Your task to perform on an android device: Open sound settings Image 0: 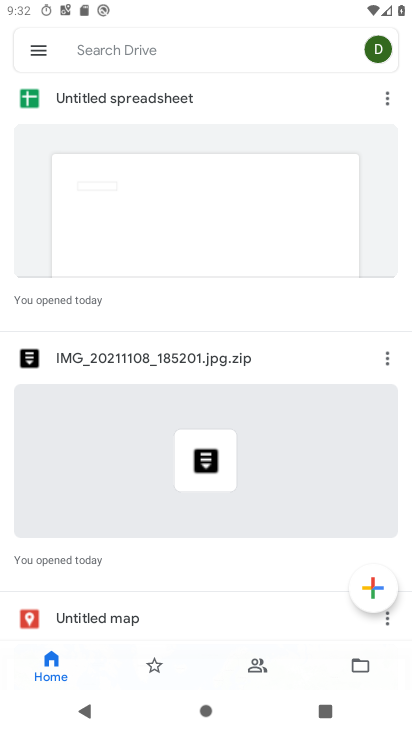
Step 0: press home button
Your task to perform on an android device: Open sound settings Image 1: 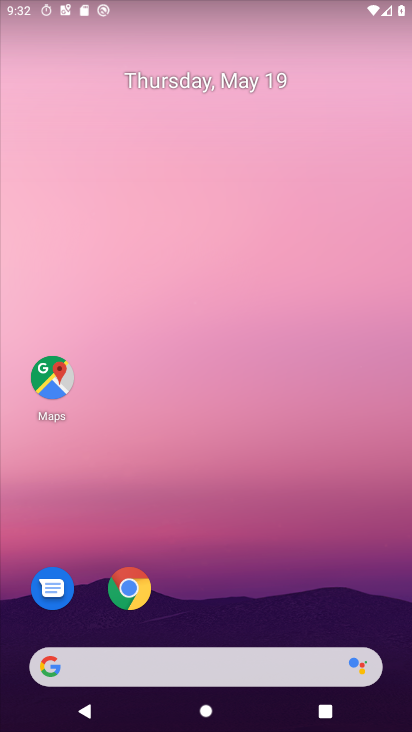
Step 1: drag from (171, 667) to (278, 220)
Your task to perform on an android device: Open sound settings Image 2: 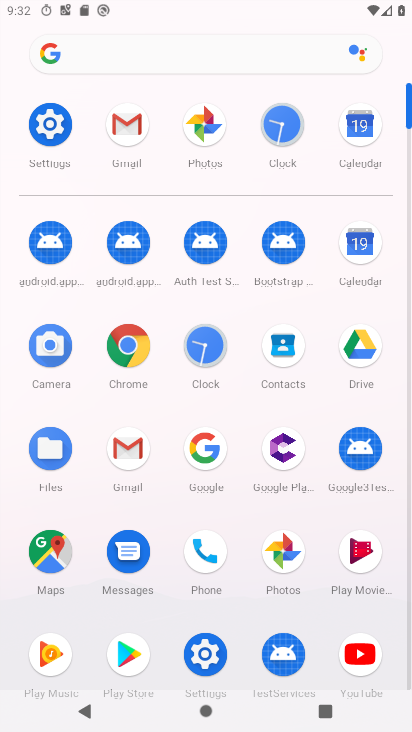
Step 2: click (59, 131)
Your task to perform on an android device: Open sound settings Image 3: 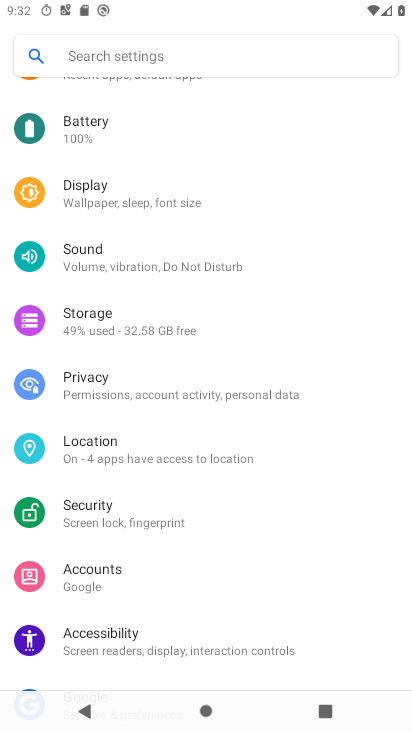
Step 3: click (88, 251)
Your task to perform on an android device: Open sound settings Image 4: 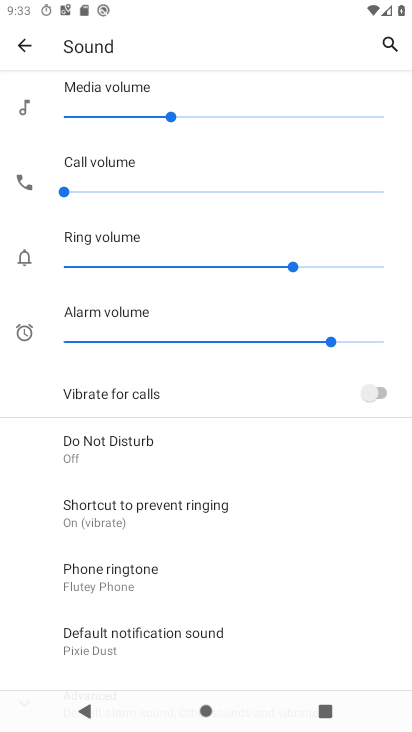
Step 4: task complete